Your task to perform on an android device: turn on location history Image 0: 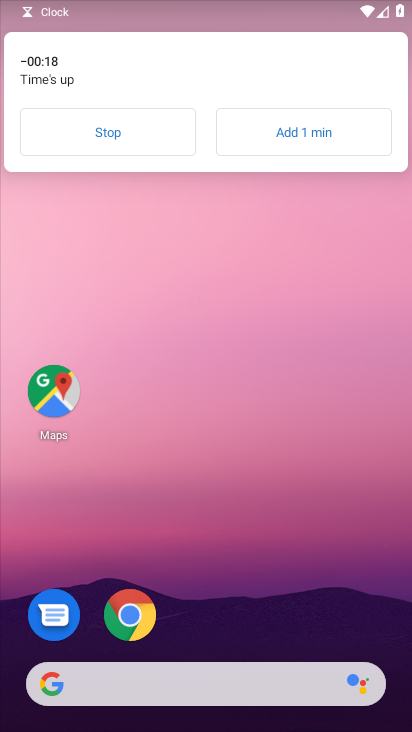
Step 0: drag from (229, 721) to (248, 9)
Your task to perform on an android device: turn on location history Image 1: 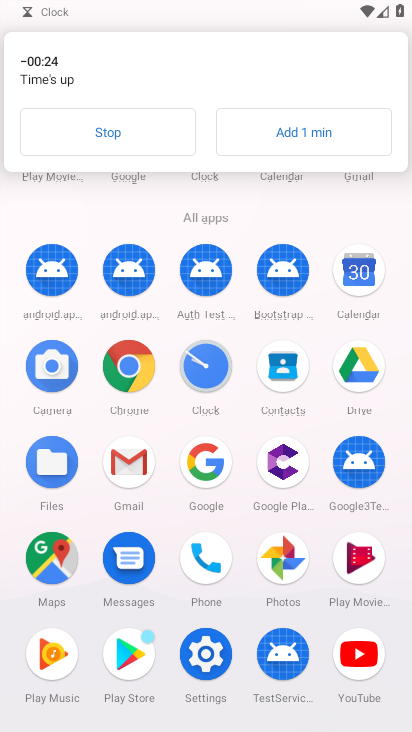
Step 1: click (203, 653)
Your task to perform on an android device: turn on location history Image 2: 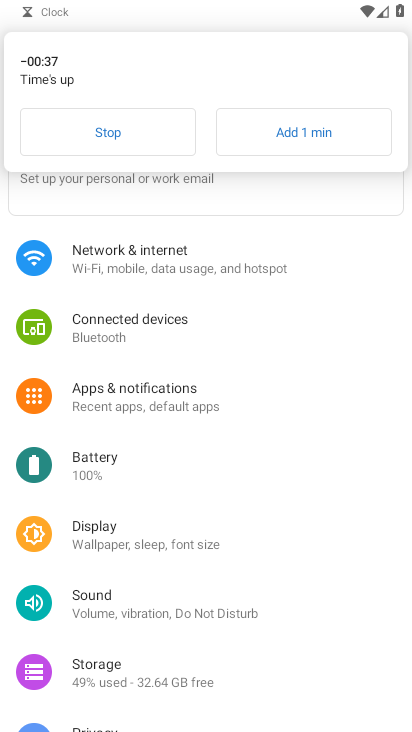
Step 2: drag from (143, 672) to (147, 619)
Your task to perform on an android device: turn on location history Image 3: 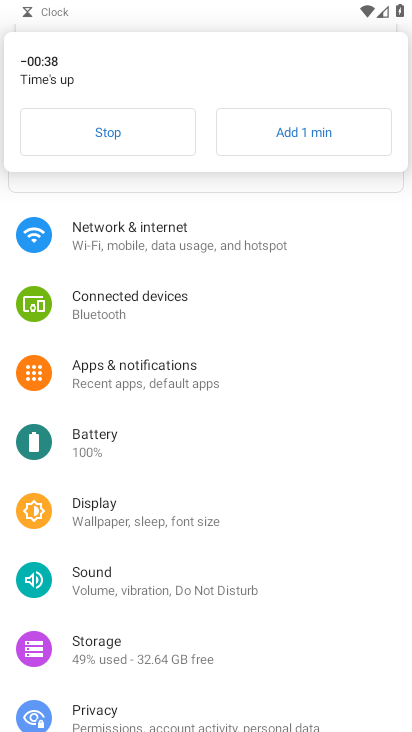
Step 3: drag from (148, 267) to (148, 152)
Your task to perform on an android device: turn on location history Image 4: 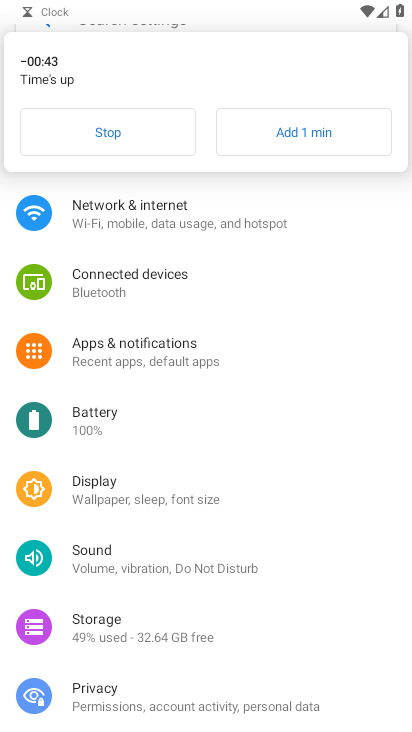
Step 4: drag from (127, 658) to (132, 602)
Your task to perform on an android device: turn on location history Image 5: 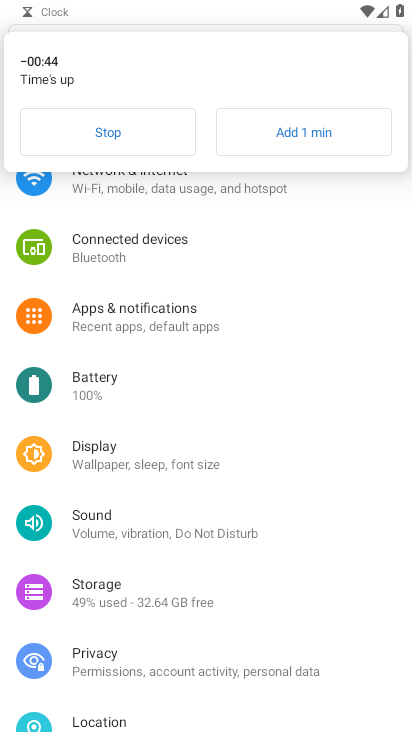
Step 5: drag from (133, 286) to (138, 194)
Your task to perform on an android device: turn on location history Image 6: 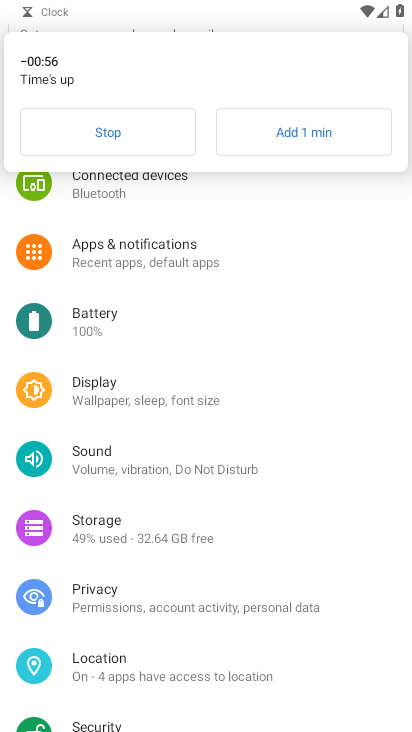
Step 6: click (96, 662)
Your task to perform on an android device: turn on location history Image 7: 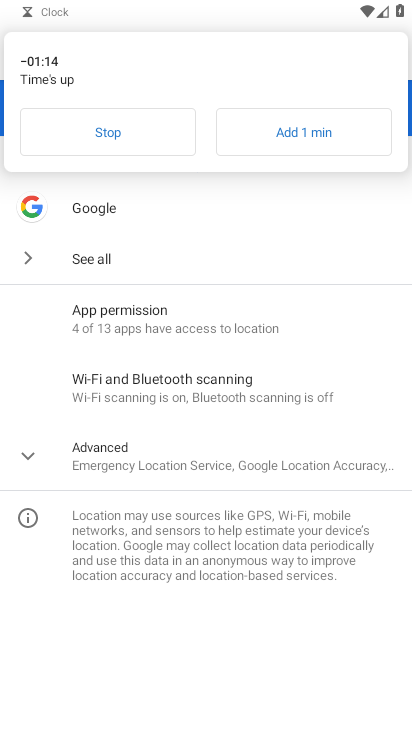
Step 7: click (98, 138)
Your task to perform on an android device: turn on location history Image 8: 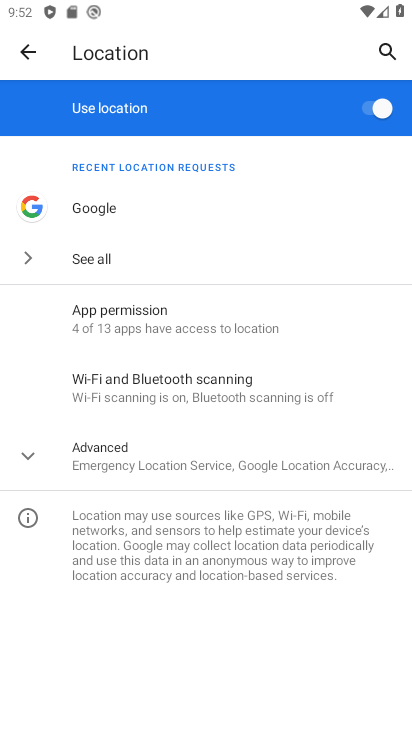
Step 8: click (120, 454)
Your task to perform on an android device: turn on location history Image 9: 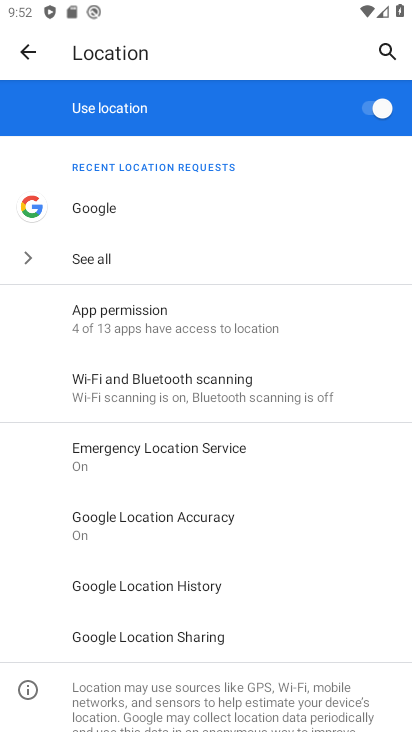
Step 9: click (148, 584)
Your task to perform on an android device: turn on location history Image 10: 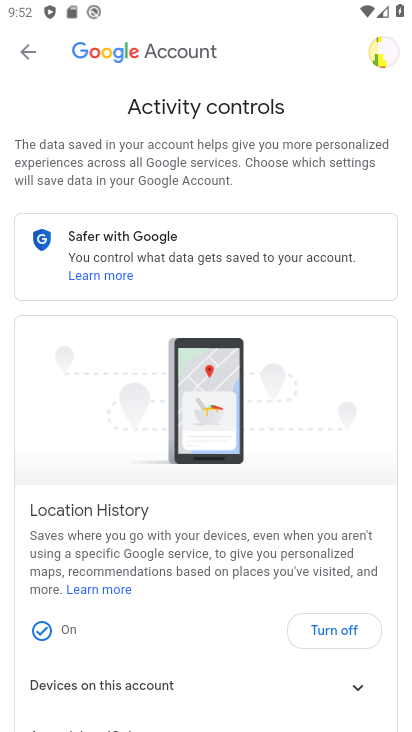
Step 10: task complete